Your task to perform on an android device: check battery use Image 0: 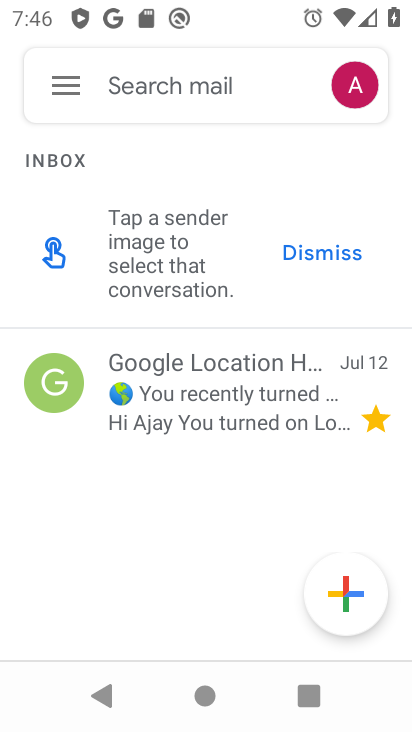
Step 0: press home button
Your task to perform on an android device: check battery use Image 1: 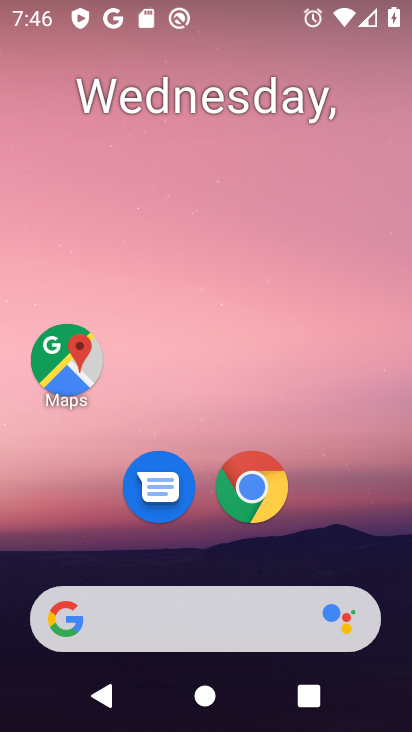
Step 1: drag from (247, 585) to (248, 241)
Your task to perform on an android device: check battery use Image 2: 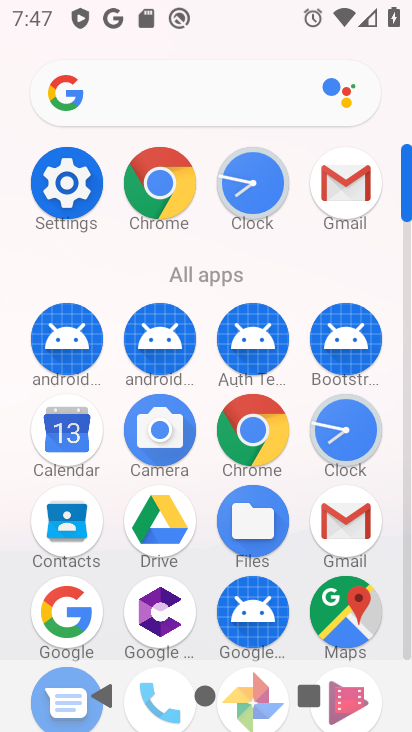
Step 2: click (85, 214)
Your task to perform on an android device: check battery use Image 3: 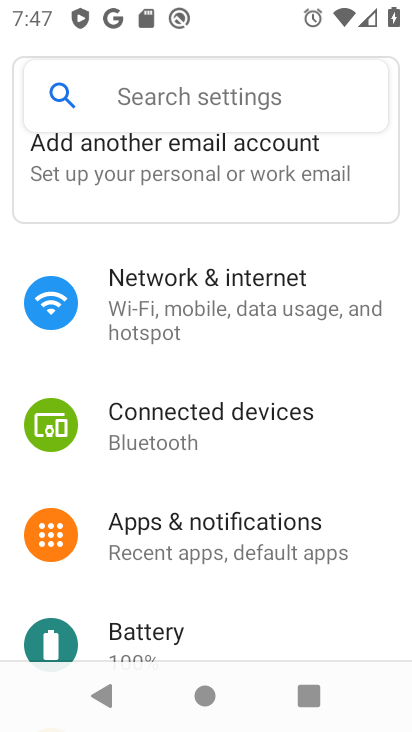
Step 3: drag from (219, 532) to (215, 132)
Your task to perform on an android device: check battery use Image 4: 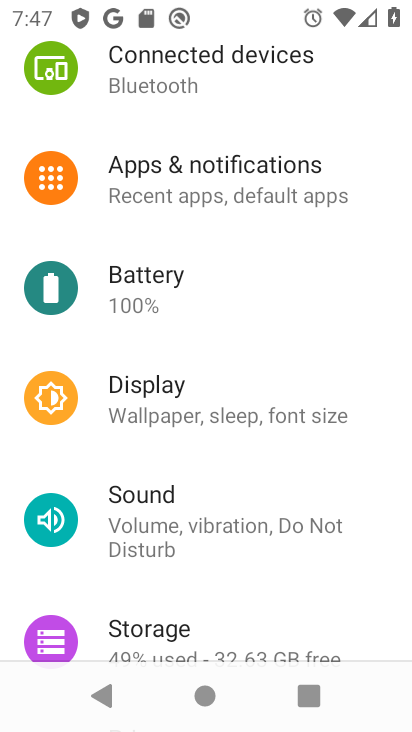
Step 4: click (177, 296)
Your task to perform on an android device: check battery use Image 5: 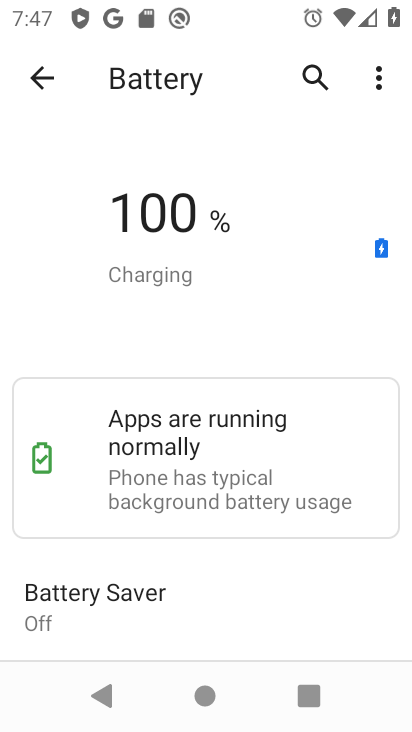
Step 5: task complete